Your task to perform on an android device: Check the weather Image 0: 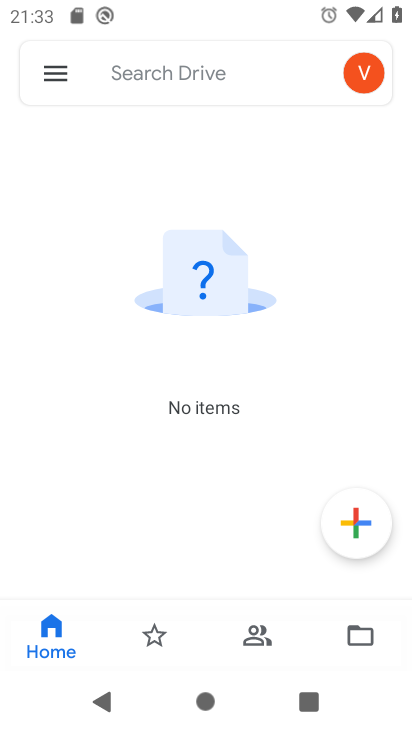
Step 0: press home button
Your task to perform on an android device: Check the weather Image 1: 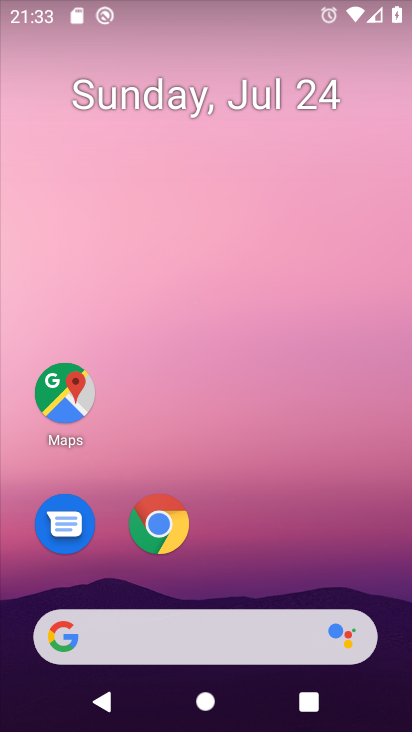
Step 1: click (229, 634)
Your task to perform on an android device: Check the weather Image 2: 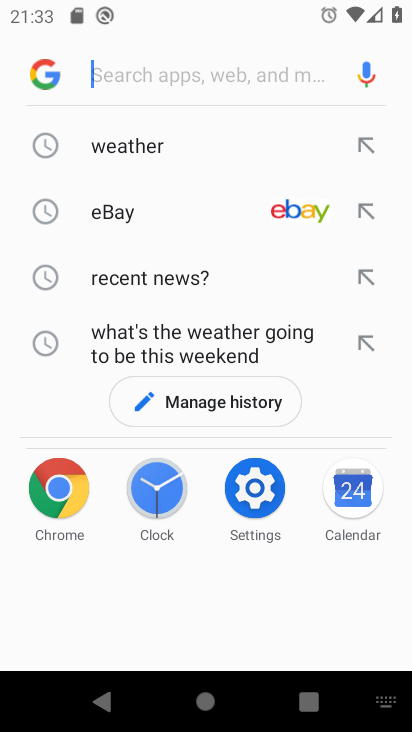
Step 2: click (141, 146)
Your task to perform on an android device: Check the weather Image 3: 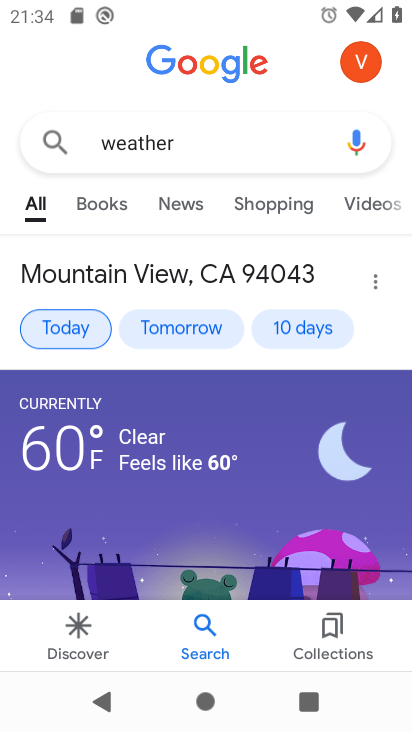
Step 3: click (91, 323)
Your task to perform on an android device: Check the weather Image 4: 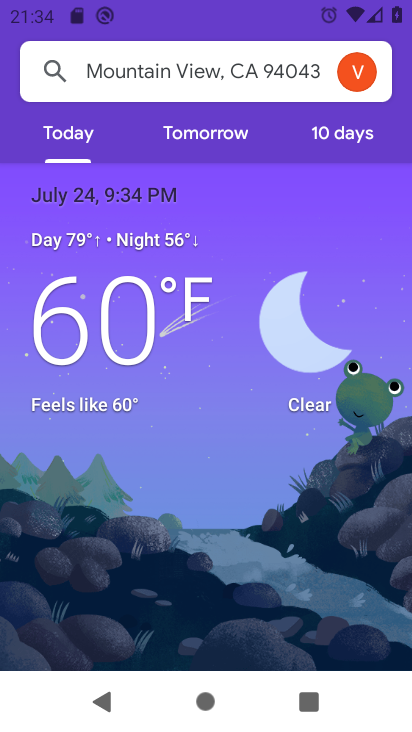
Step 4: task complete